Your task to perform on an android device: open app "VLC for Android" (install if not already installed) Image 0: 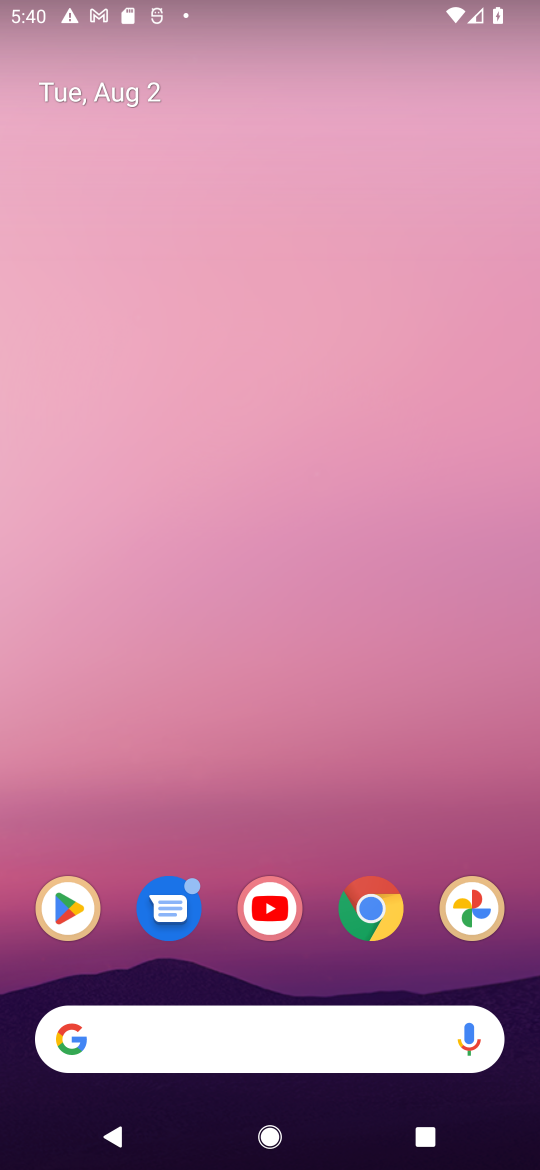
Step 0: click (64, 897)
Your task to perform on an android device: open app "VLC for Android" (install if not already installed) Image 1: 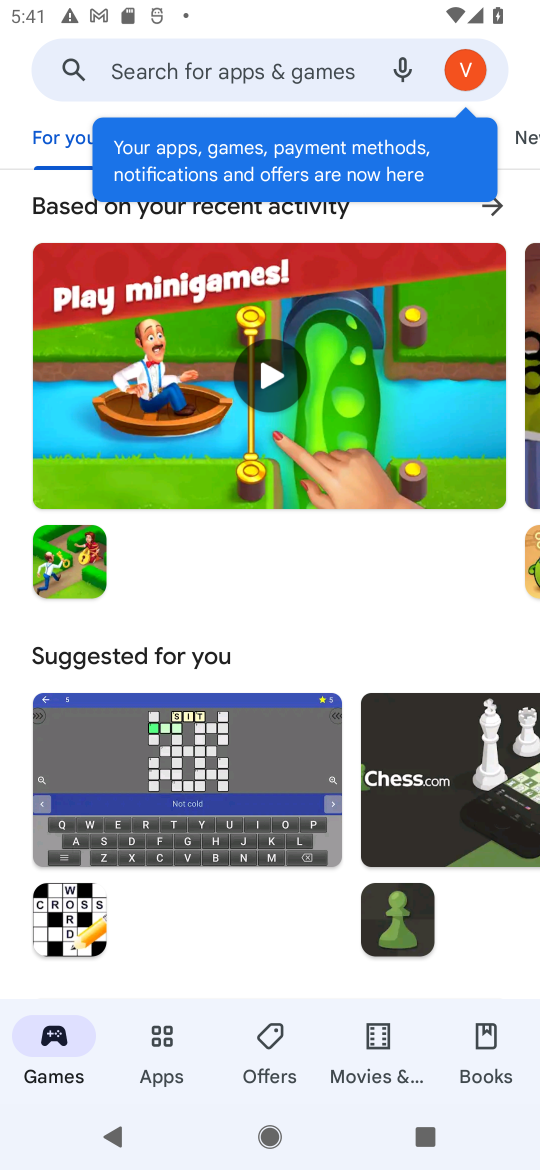
Step 1: click (163, 69)
Your task to perform on an android device: open app "VLC for Android" (install if not already installed) Image 2: 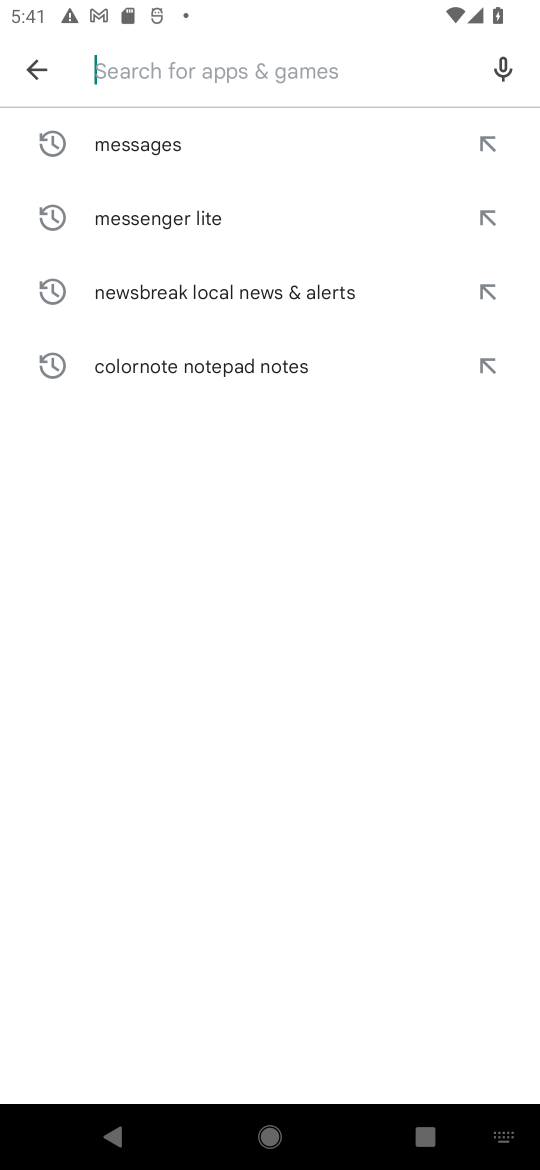
Step 2: type "VLC for Android"
Your task to perform on an android device: open app "VLC for Android" (install if not already installed) Image 3: 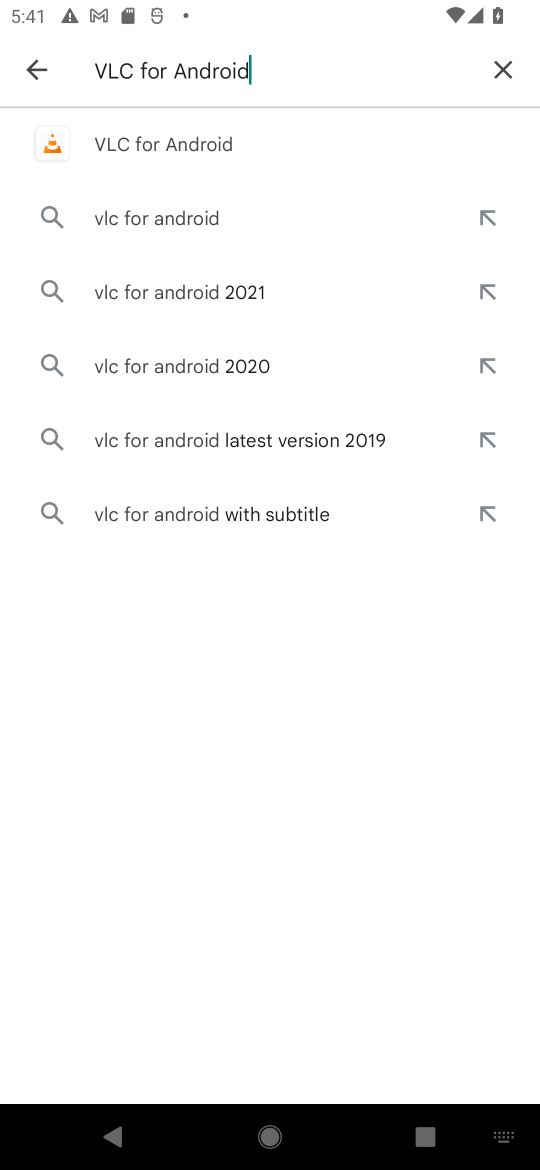
Step 3: click (115, 134)
Your task to perform on an android device: open app "VLC for Android" (install if not already installed) Image 4: 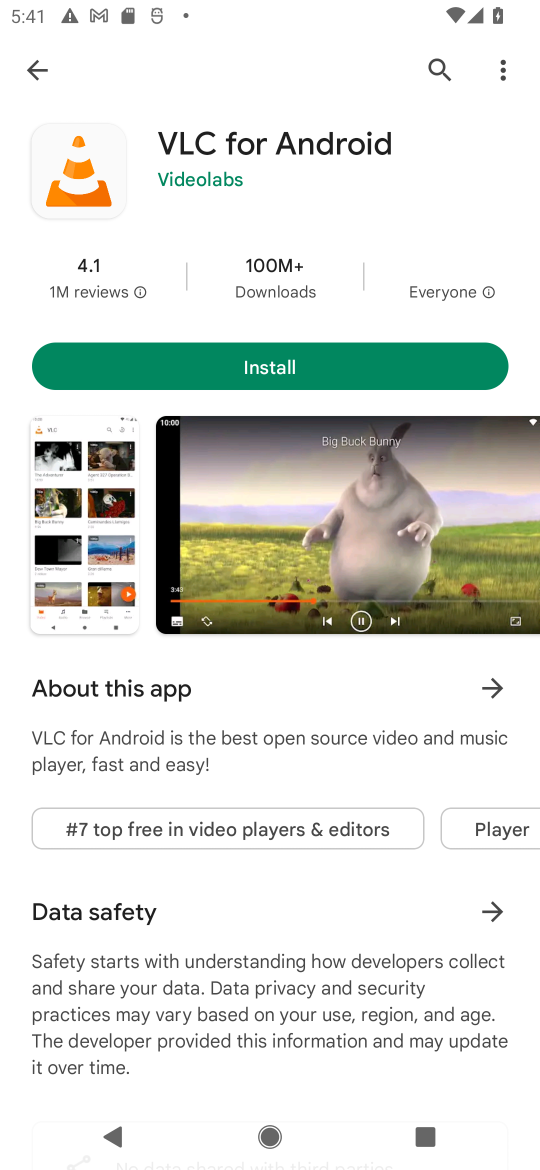
Step 4: click (276, 370)
Your task to perform on an android device: open app "VLC for Android" (install if not already installed) Image 5: 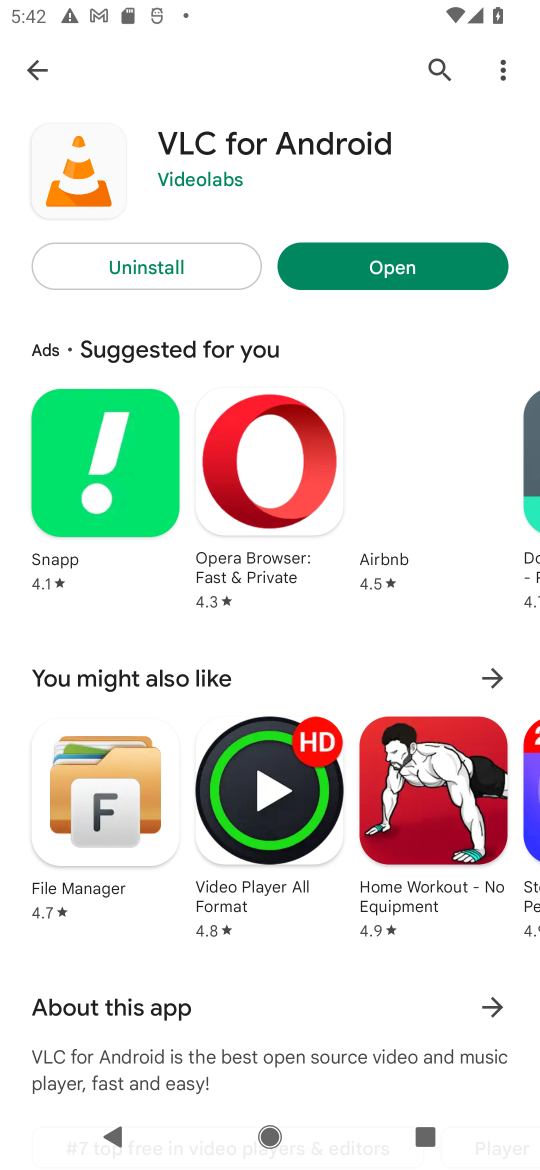
Step 5: click (391, 270)
Your task to perform on an android device: open app "VLC for Android" (install if not already installed) Image 6: 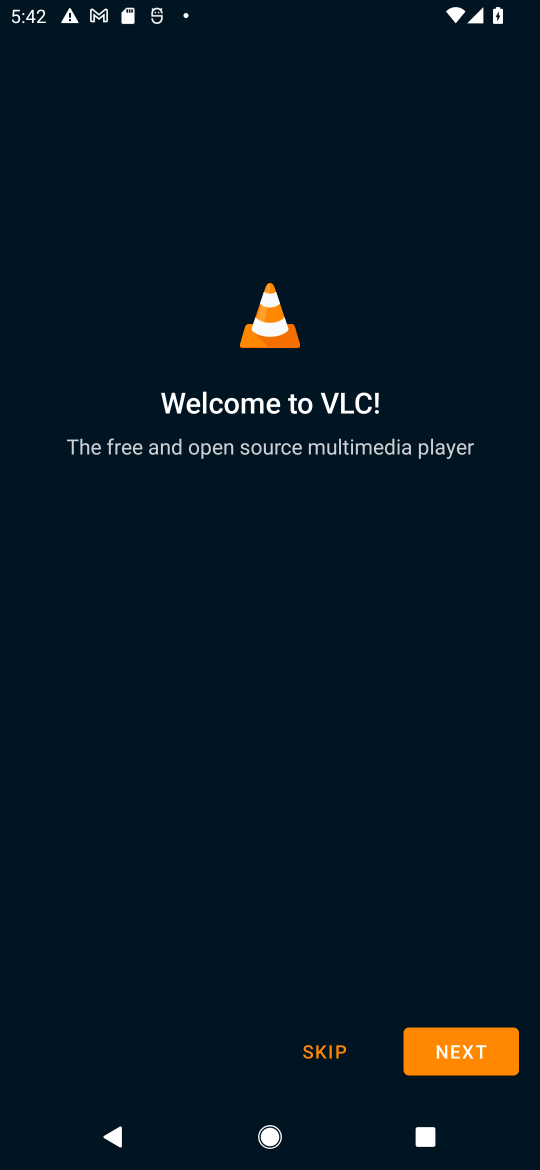
Step 6: click (325, 1054)
Your task to perform on an android device: open app "VLC for Android" (install if not already installed) Image 7: 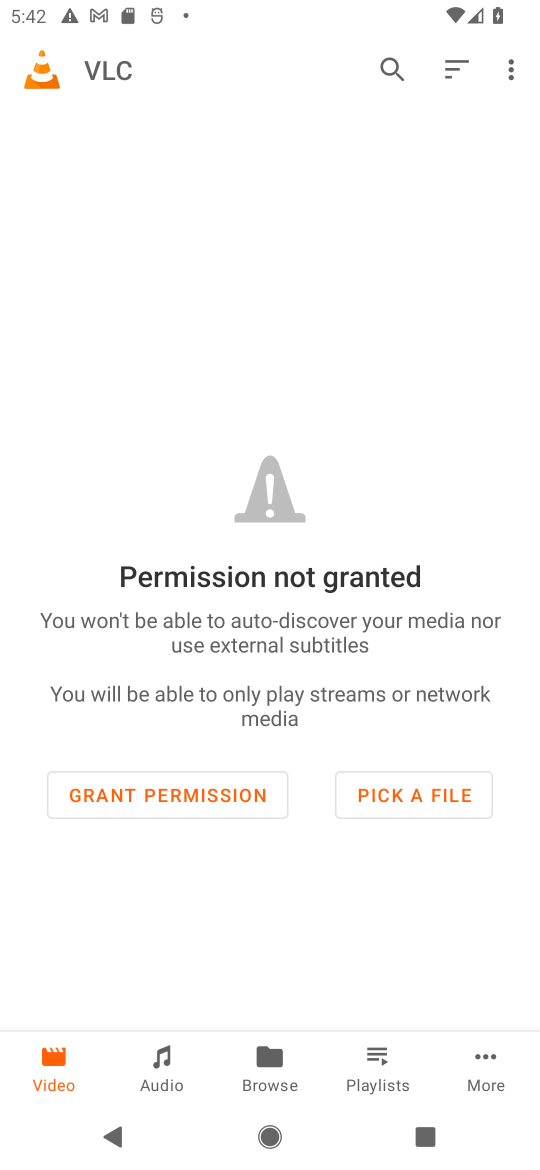
Step 7: click (417, 791)
Your task to perform on an android device: open app "VLC for Android" (install if not already installed) Image 8: 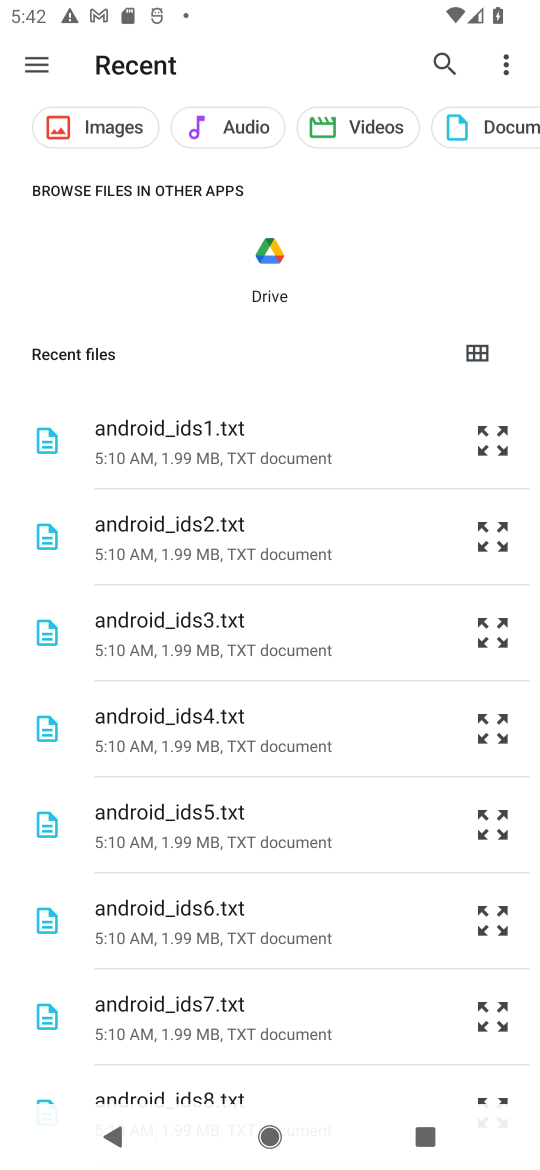
Step 8: task complete